Your task to perform on an android device: turn on bluetooth scan Image 0: 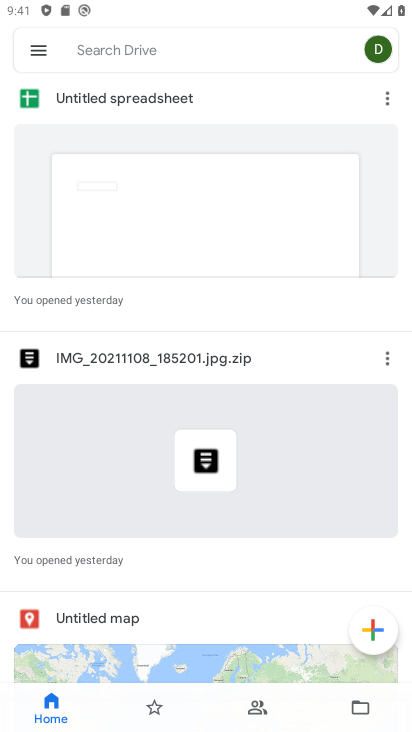
Step 0: press home button
Your task to perform on an android device: turn on bluetooth scan Image 1: 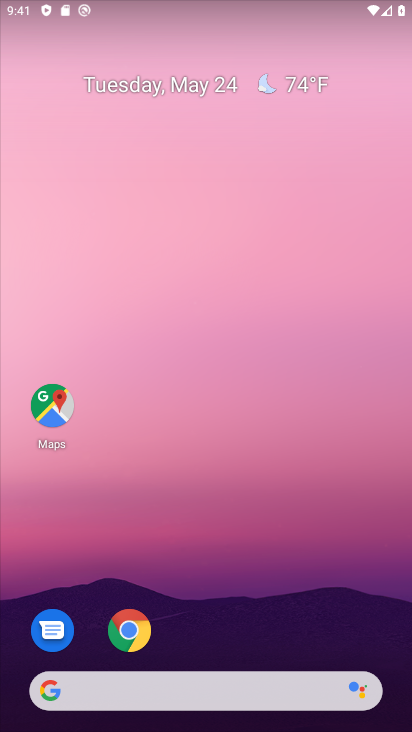
Step 1: drag from (372, 610) to (275, 154)
Your task to perform on an android device: turn on bluetooth scan Image 2: 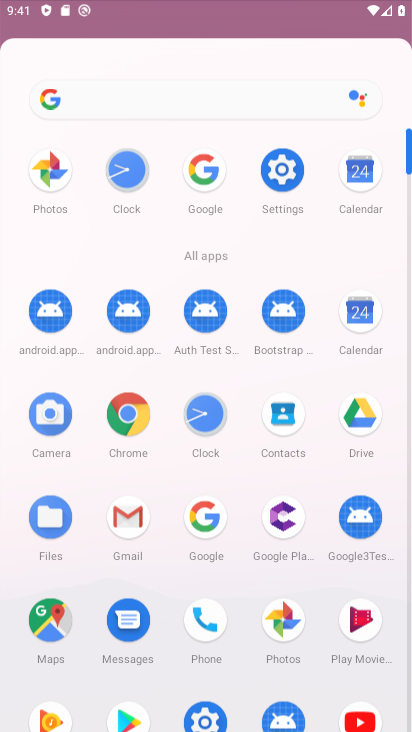
Step 2: click (290, 171)
Your task to perform on an android device: turn on bluetooth scan Image 3: 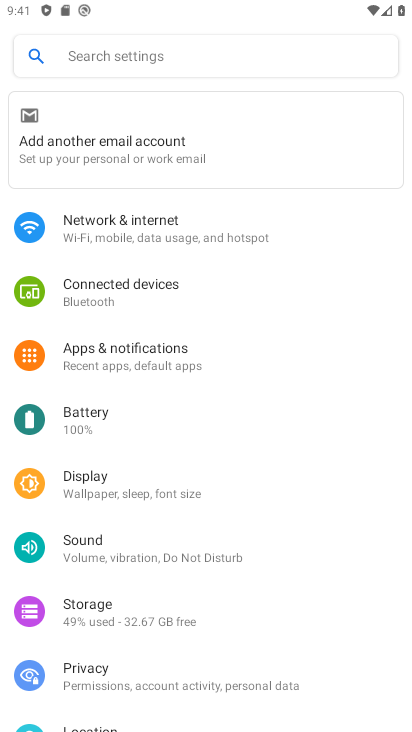
Step 3: drag from (184, 621) to (157, 210)
Your task to perform on an android device: turn on bluetooth scan Image 4: 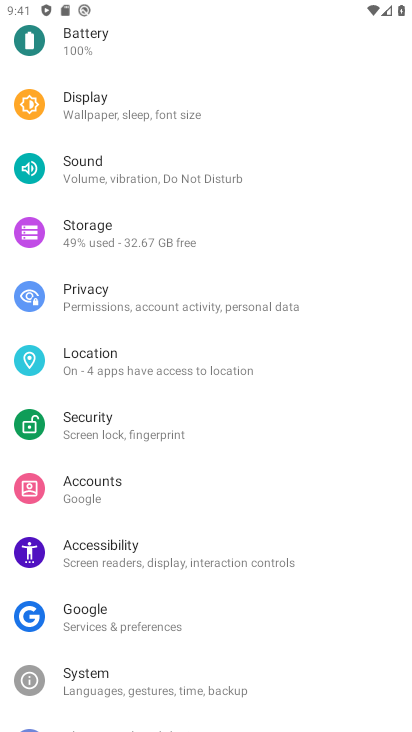
Step 4: click (142, 370)
Your task to perform on an android device: turn on bluetooth scan Image 5: 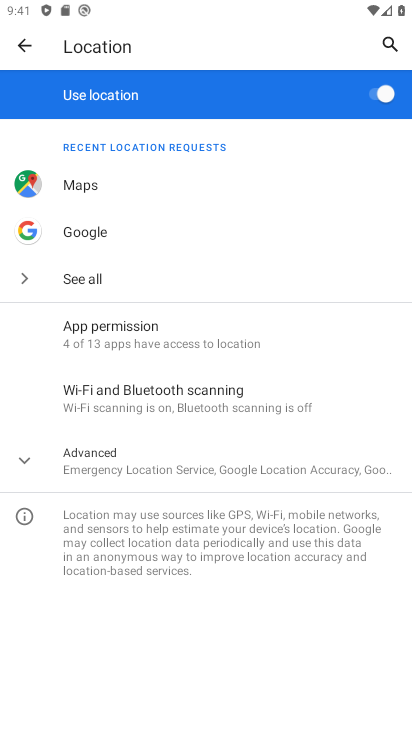
Step 5: click (190, 474)
Your task to perform on an android device: turn on bluetooth scan Image 6: 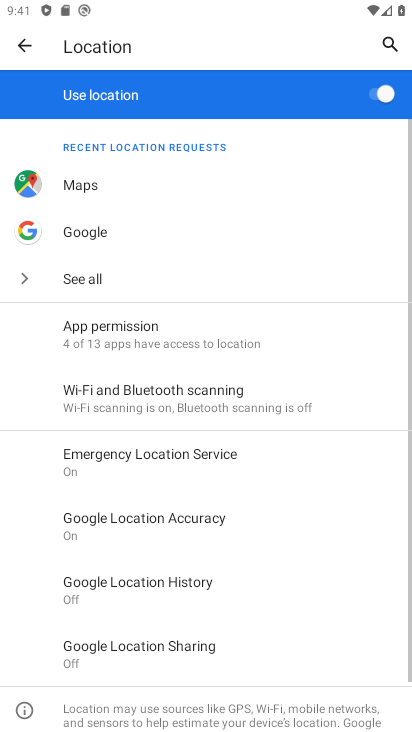
Step 6: click (179, 409)
Your task to perform on an android device: turn on bluetooth scan Image 7: 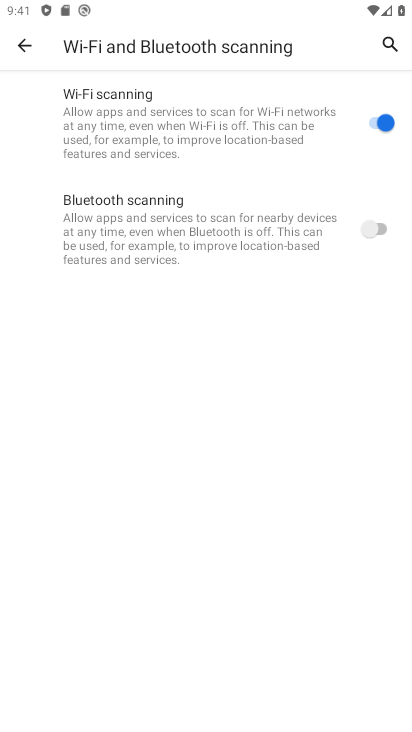
Step 7: click (371, 223)
Your task to perform on an android device: turn on bluetooth scan Image 8: 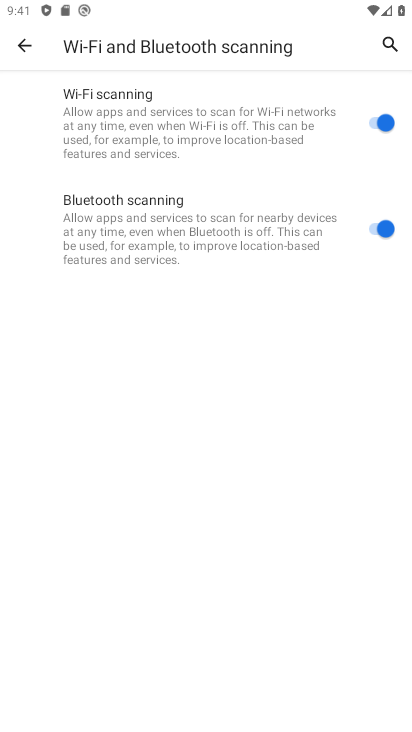
Step 8: task complete